Your task to perform on an android device: Search for Mexican restaurants on Maps Image 0: 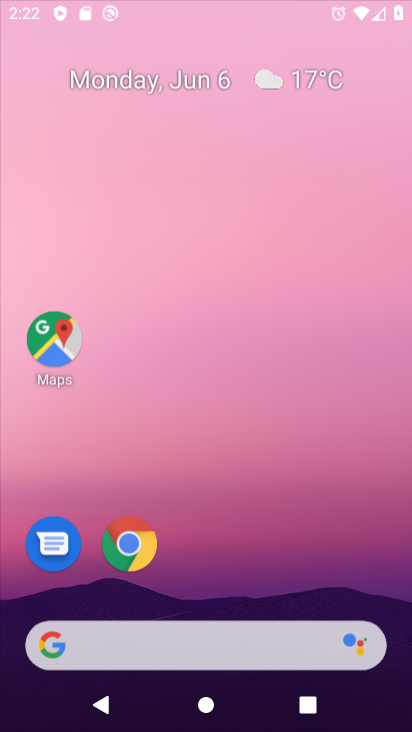
Step 0: click (55, 322)
Your task to perform on an android device: Search for Mexican restaurants on Maps Image 1: 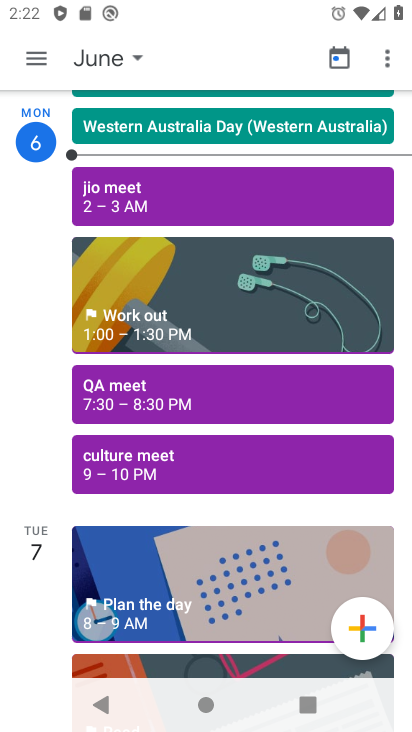
Step 1: press home button
Your task to perform on an android device: Search for Mexican restaurants on Maps Image 2: 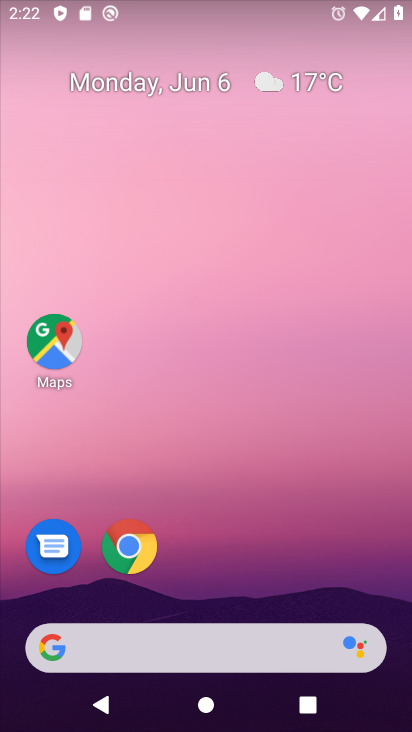
Step 2: click (53, 336)
Your task to perform on an android device: Search for Mexican restaurants on Maps Image 3: 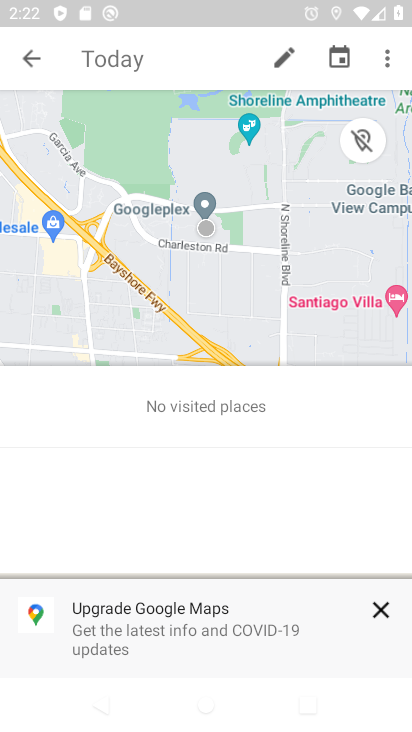
Step 3: click (34, 48)
Your task to perform on an android device: Search for Mexican restaurants on Maps Image 4: 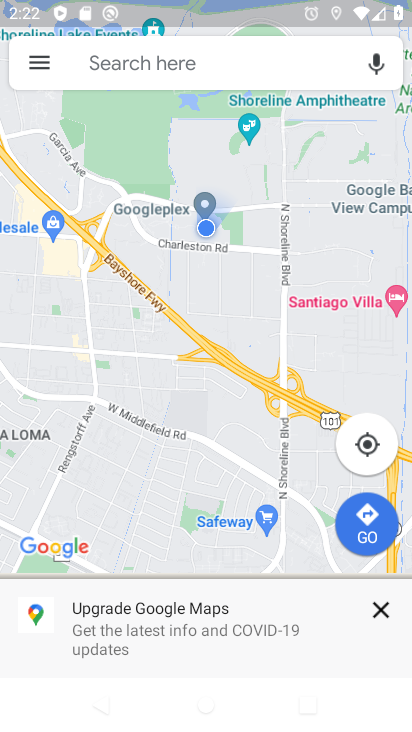
Step 4: click (247, 47)
Your task to perform on an android device: Search for Mexican restaurants on Maps Image 5: 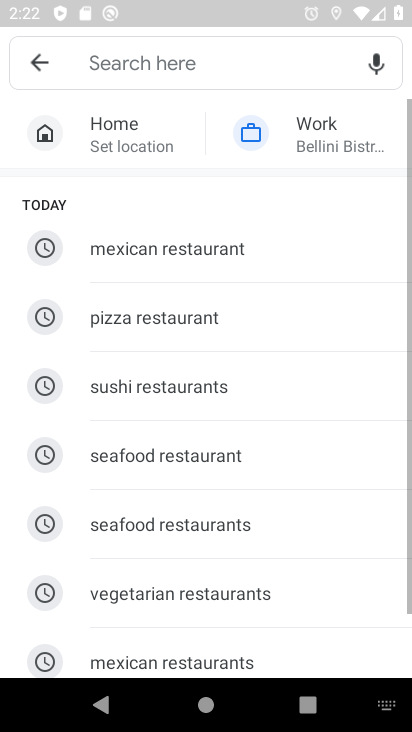
Step 5: click (180, 231)
Your task to perform on an android device: Search for Mexican restaurants on Maps Image 6: 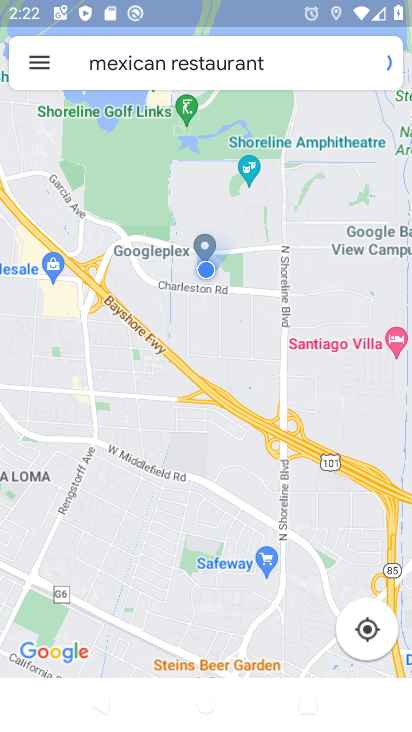
Step 6: task complete